Your task to perform on an android device: install app "Lyft - Rideshare, Bikes, Scooters & Transit" Image 0: 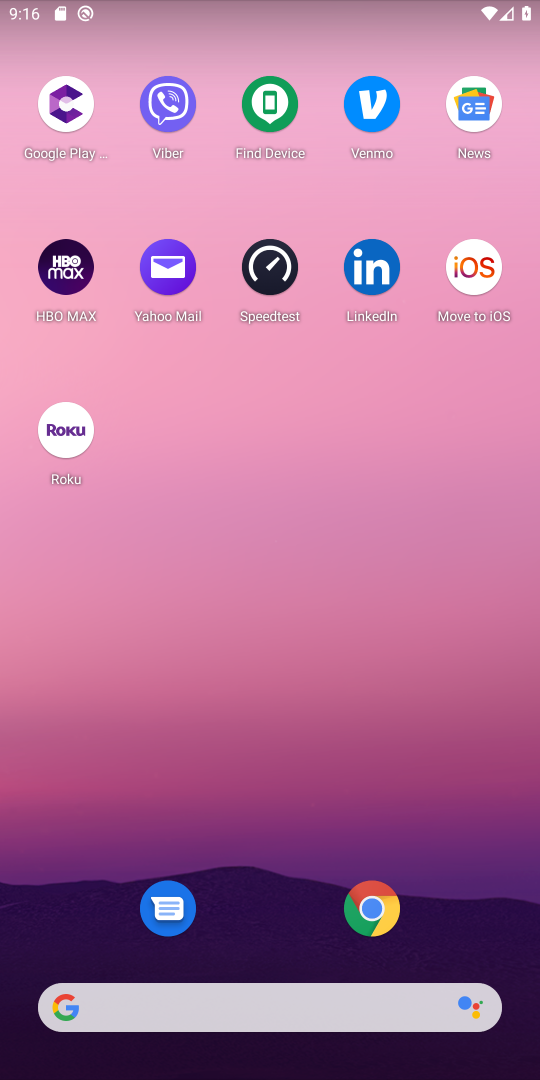
Step 0: drag from (251, 962) to (207, 7)
Your task to perform on an android device: install app "Lyft - Rideshare, Bikes, Scooters & Transit" Image 1: 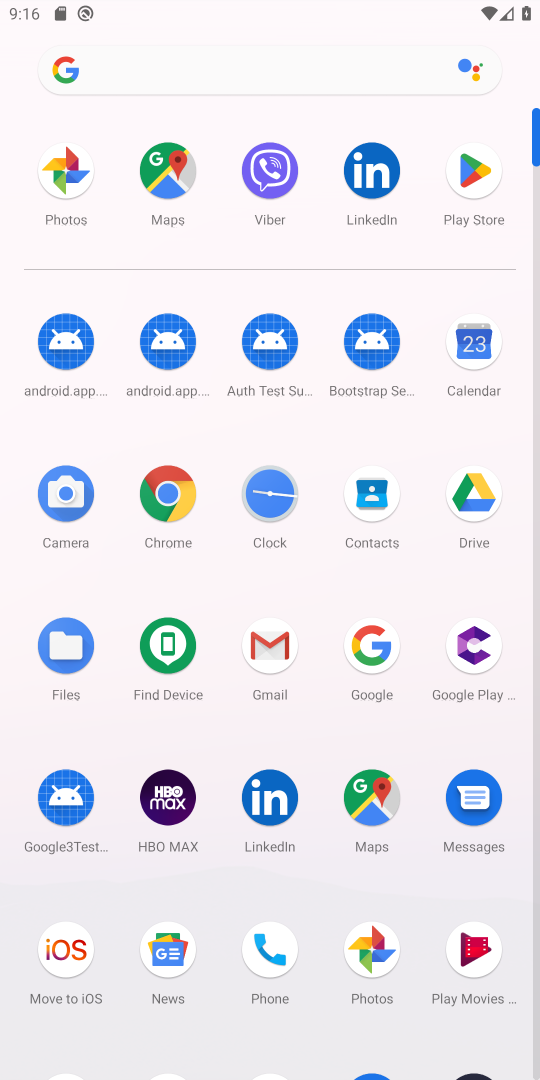
Step 1: click (481, 194)
Your task to perform on an android device: install app "Lyft - Rideshare, Bikes, Scooters & Transit" Image 2: 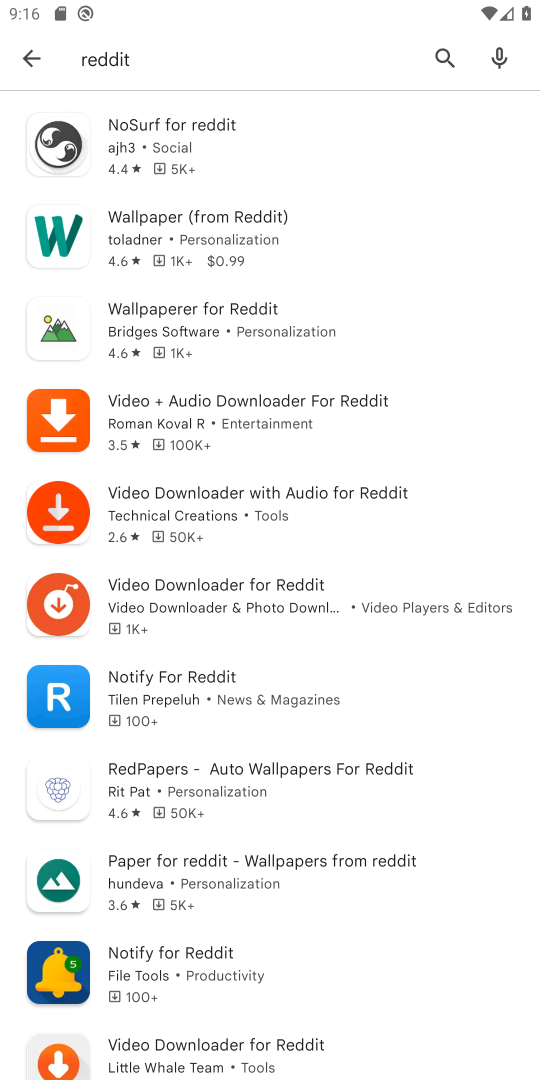
Step 2: click (212, 67)
Your task to perform on an android device: install app "Lyft - Rideshare, Bikes, Scooters & Transit" Image 3: 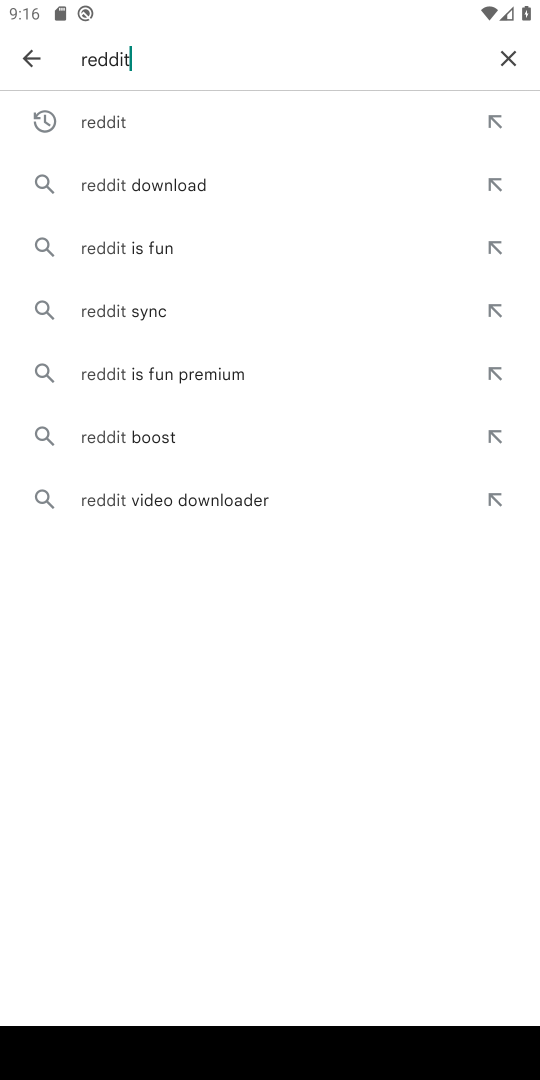
Step 3: click (511, 55)
Your task to perform on an android device: install app "Lyft - Rideshare, Bikes, Scooters & Transit" Image 4: 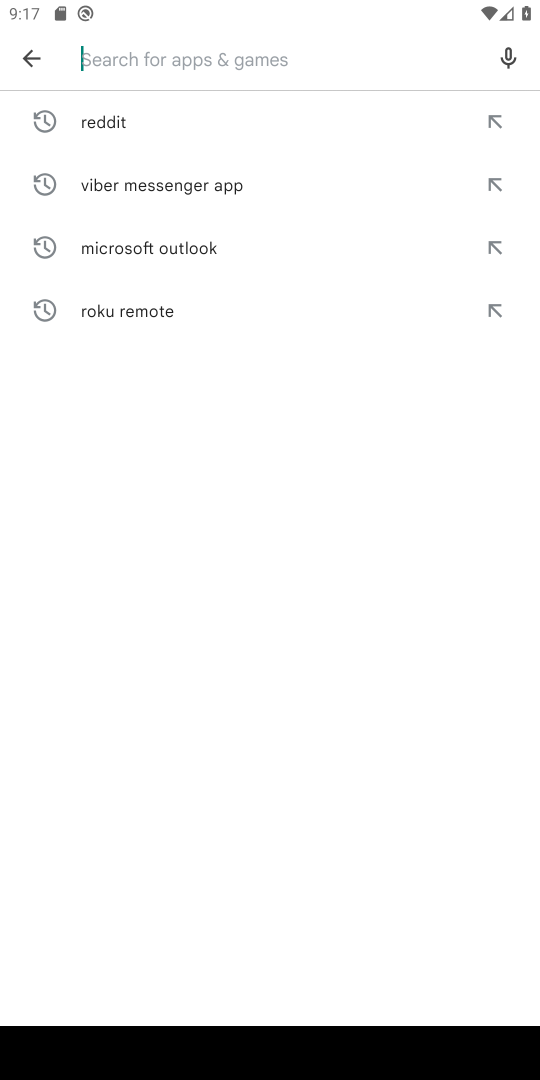
Step 4: type "lyft"
Your task to perform on an android device: install app "Lyft - Rideshare, Bikes, Scooters & Transit" Image 5: 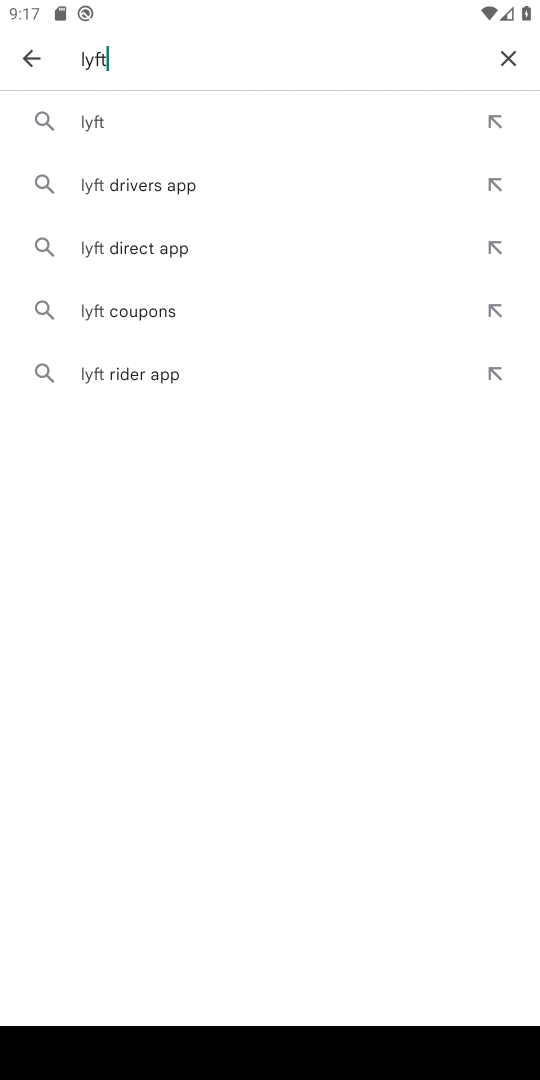
Step 5: click (122, 105)
Your task to perform on an android device: install app "Lyft - Rideshare, Bikes, Scooters & Transit" Image 6: 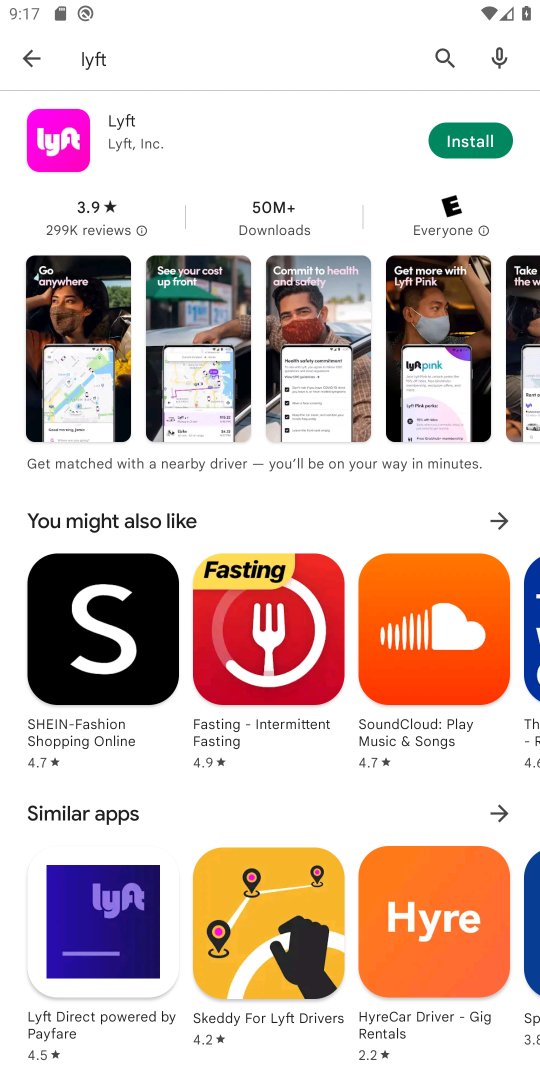
Step 6: click (481, 147)
Your task to perform on an android device: install app "Lyft - Rideshare, Bikes, Scooters & Transit" Image 7: 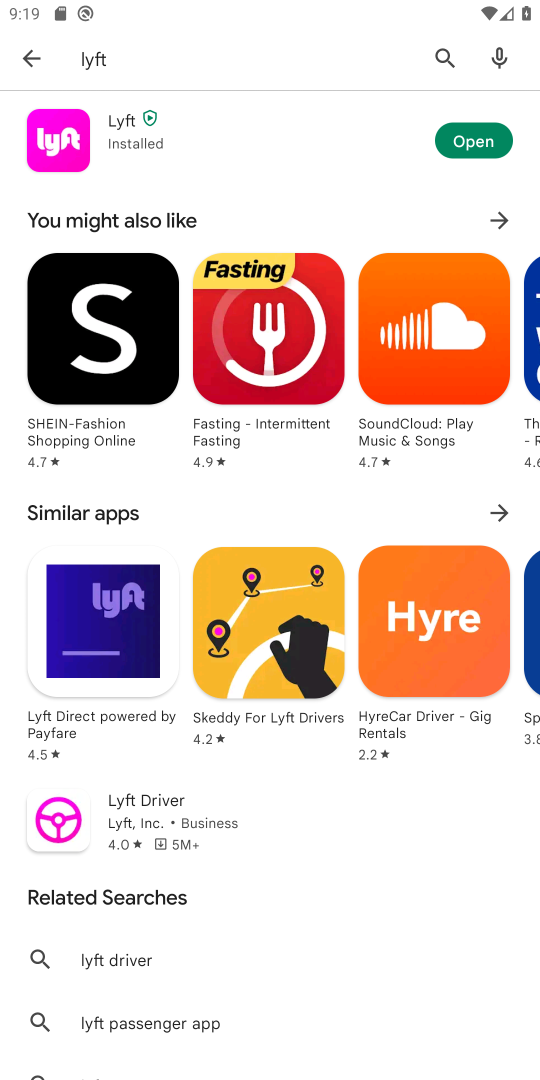
Step 7: task complete